Your task to perform on an android device: Open Reddit.com Image 0: 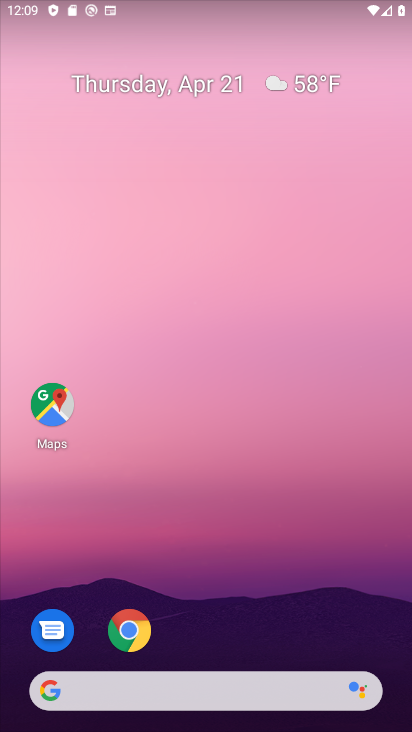
Step 0: drag from (226, 609) to (299, 101)
Your task to perform on an android device: Open Reddit.com Image 1: 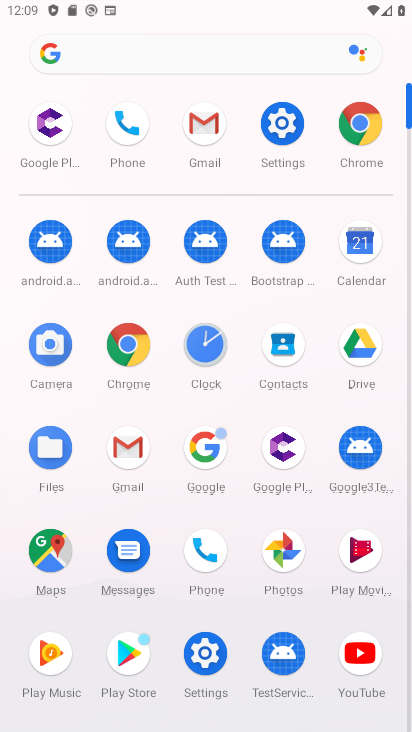
Step 1: click (366, 133)
Your task to perform on an android device: Open Reddit.com Image 2: 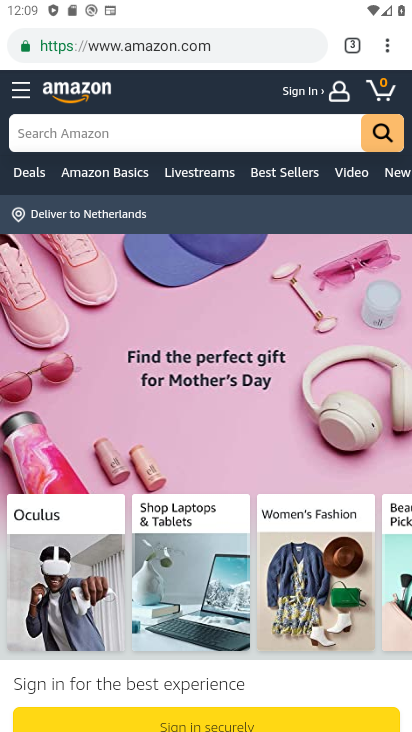
Step 2: click (379, 48)
Your task to perform on an android device: Open Reddit.com Image 3: 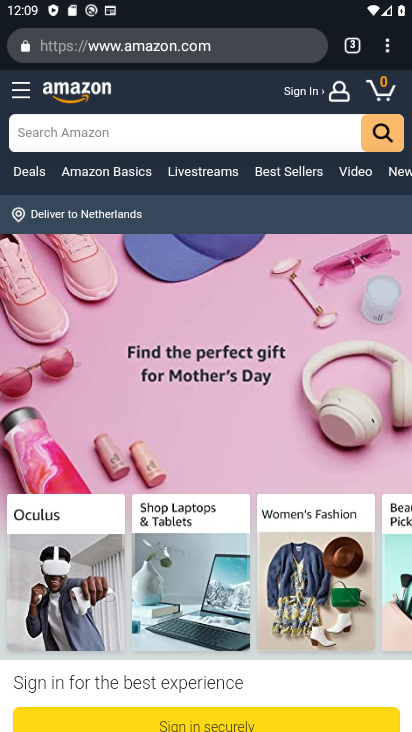
Step 3: click (378, 57)
Your task to perform on an android device: Open Reddit.com Image 4: 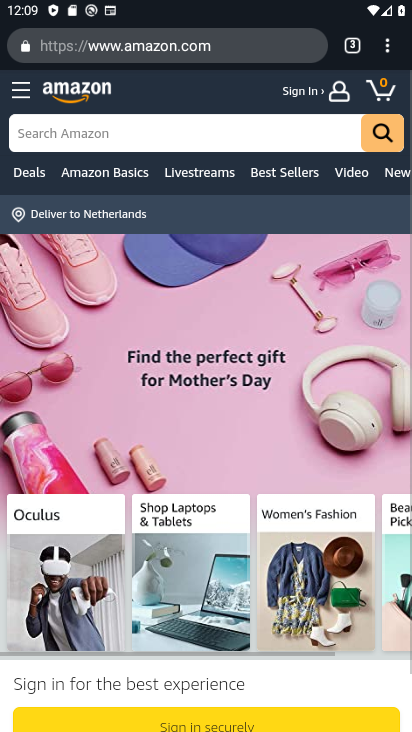
Step 4: click (378, 57)
Your task to perform on an android device: Open Reddit.com Image 5: 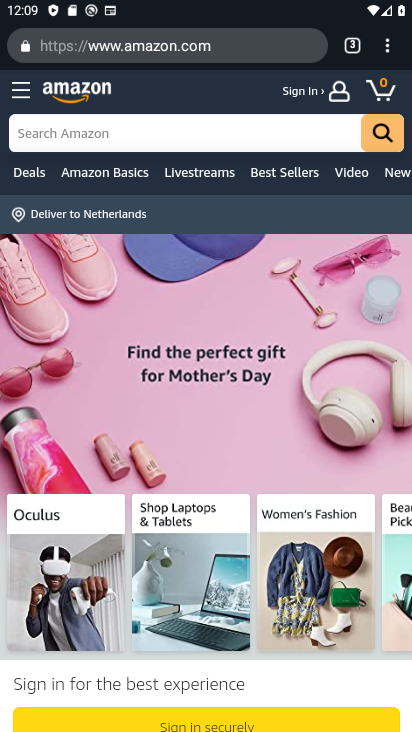
Step 5: click (381, 59)
Your task to perform on an android device: Open Reddit.com Image 6: 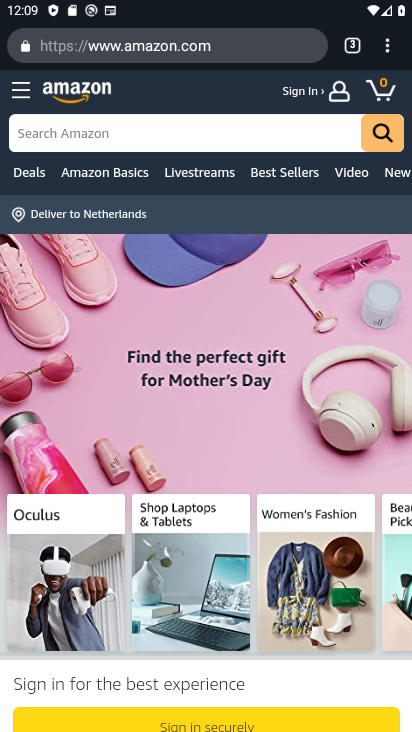
Step 6: click (373, 54)
Your task to perform on an android device: Open Reddit.com Image 7: 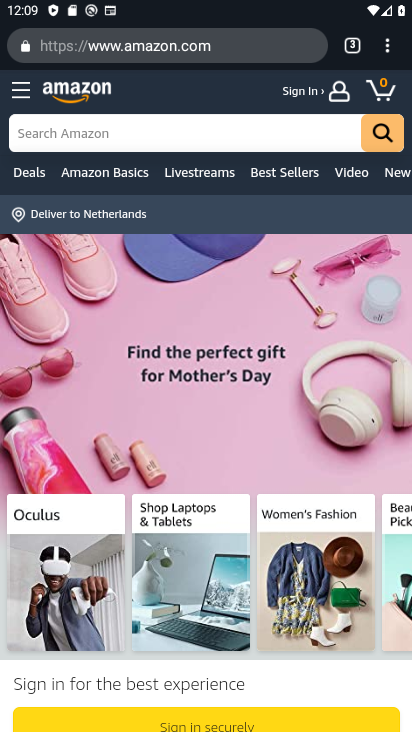
Step 7: click (378, 53)
Your task to perform on an android device: Open Reddit.com Image 8: 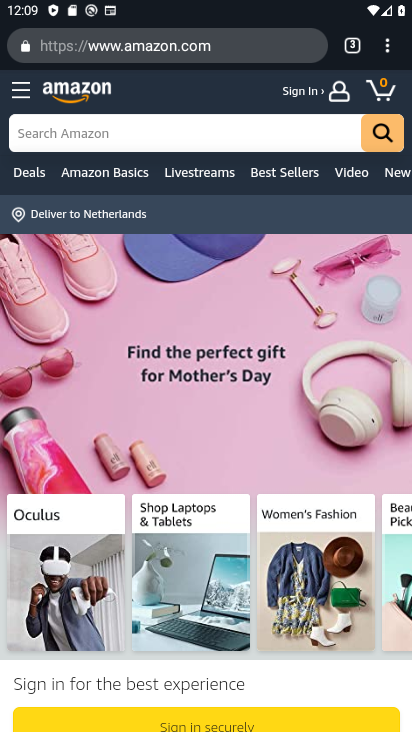
Step 8: click (394, 55)
Your task to perform on an android device: Open Reddit.com Image 9: 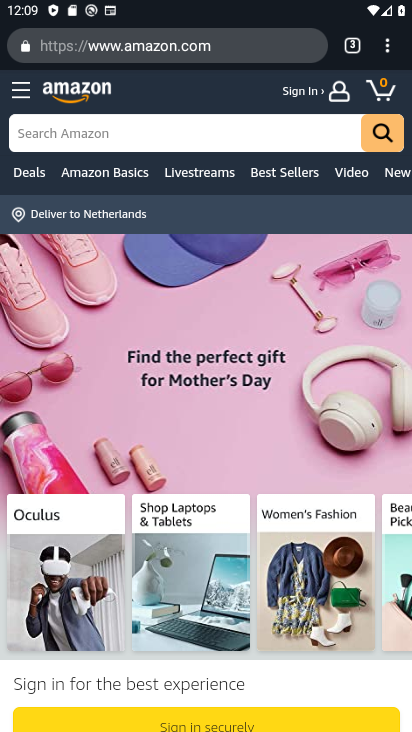
Step 9: click (385, 62)
Your task to perform on an android device: Open Reddit.com Image 10: 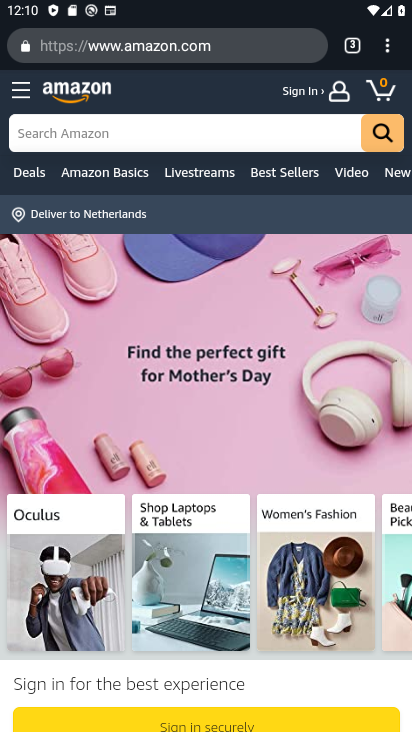
Step 10: click (386, 55)
Your task to perform on an android device: Open Reddit.com Image 11: 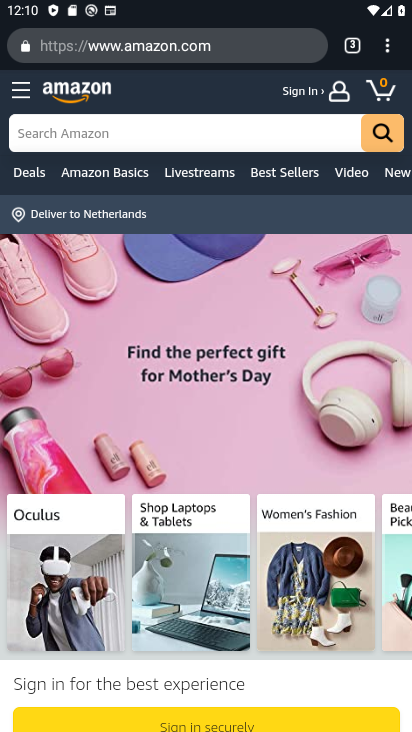
Step 11: click (389, 48)
Your task to perform on an android device: Open Reddit.com Image 12: 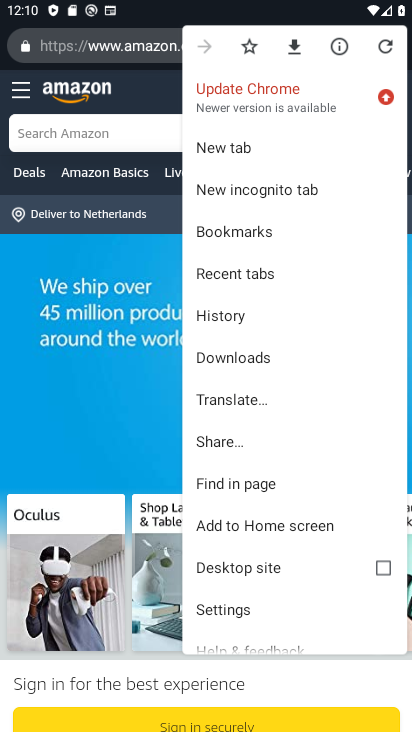
Step 12: click (240, 144)
Your task to perform on an android device: Open Reddit.com Image 13: 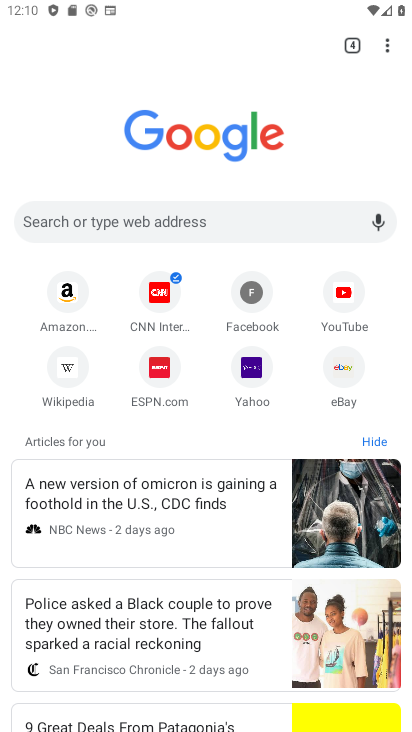
Step 13: click (135, 223)
Your task to perform on an android device: Open Reddit.com Image 14: 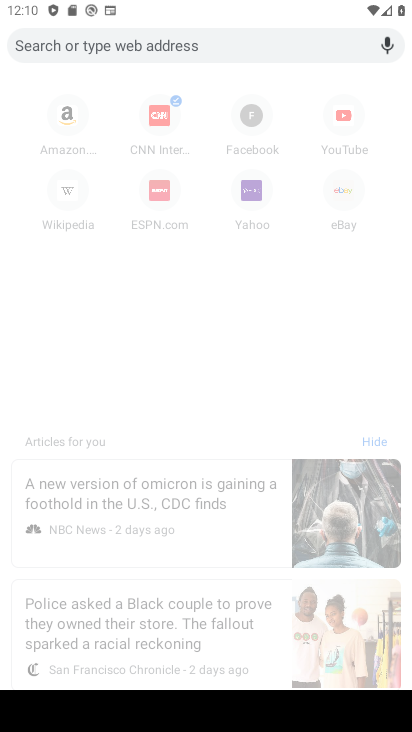
Step 14: type "reddit.com"
Your task to perform on an android device: Open Reddit.com Image 15: 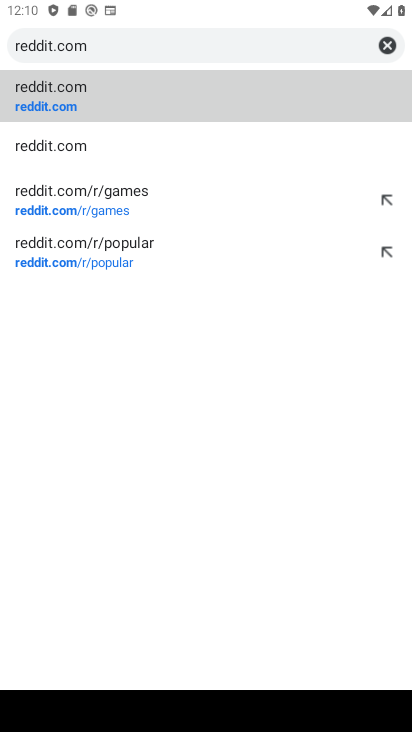
Step 15: click (48, 100)
Your task to perform on an android device: Open Reddit.com Image 16: 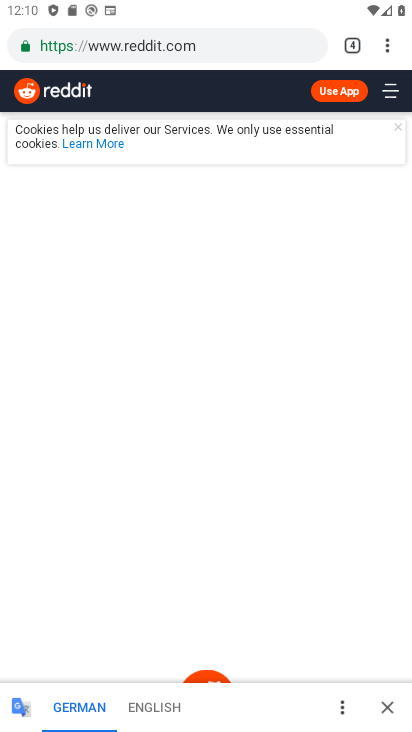
Step 16: task complete